Your task to perform on an android device: Open eBay Image 0: 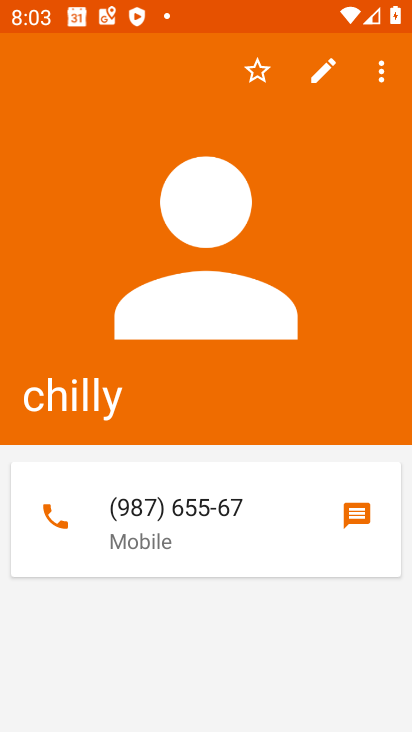
Step 0: press home button
Your task to perform on an android device: Open eBay Image 1: 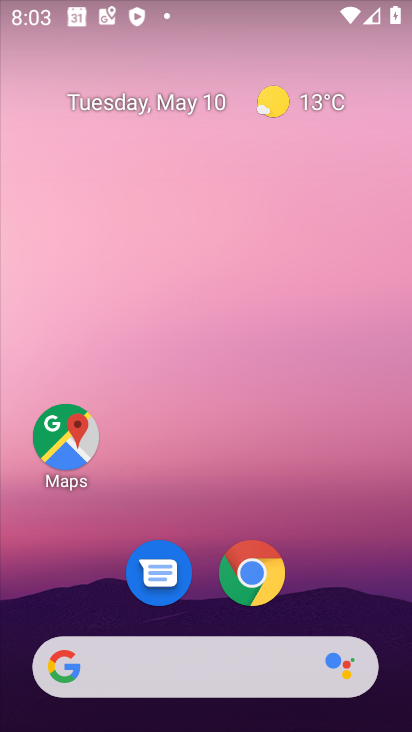
Step 1: click (253, 577)
Your task to perform on an android device: Open eBay Image 2: 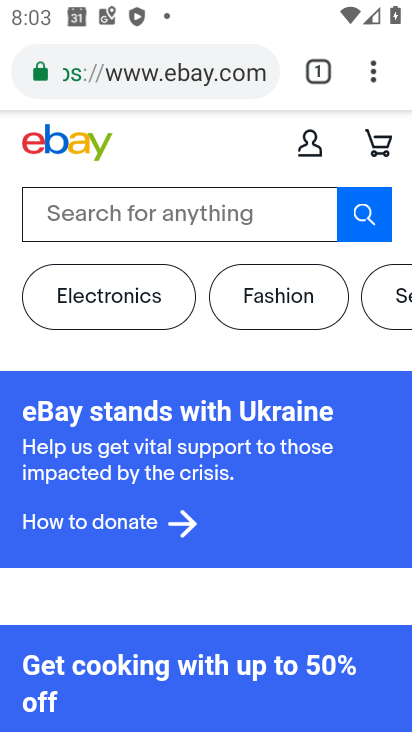
Step 2: task complete